Your task to perform on an android device: Search for the best rated book on Goodreads. Image 0: 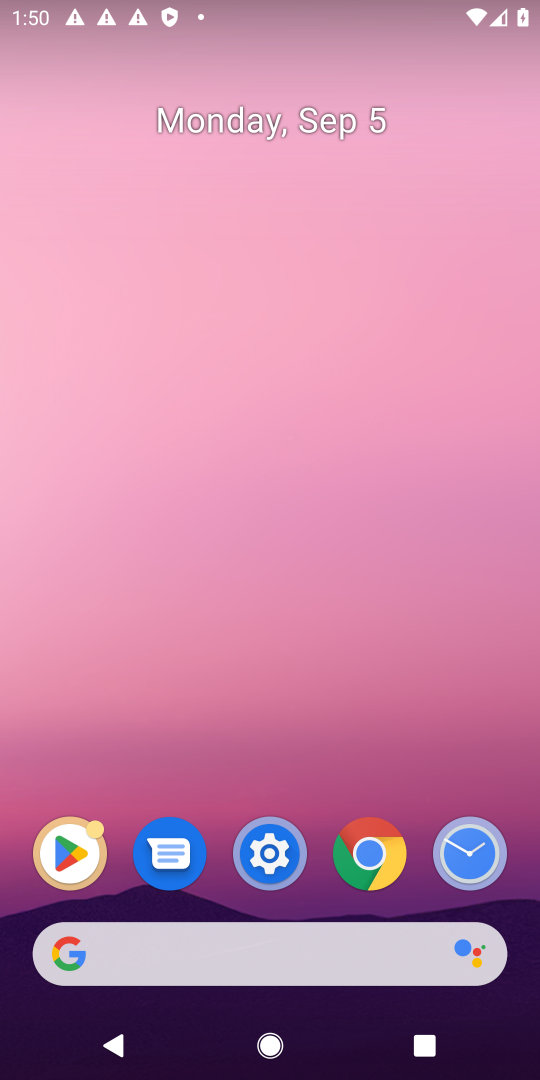
Step 0: click (441, 291)
Your task to perform on an android device: Search for the best rated book on Goodreads. Image 1: 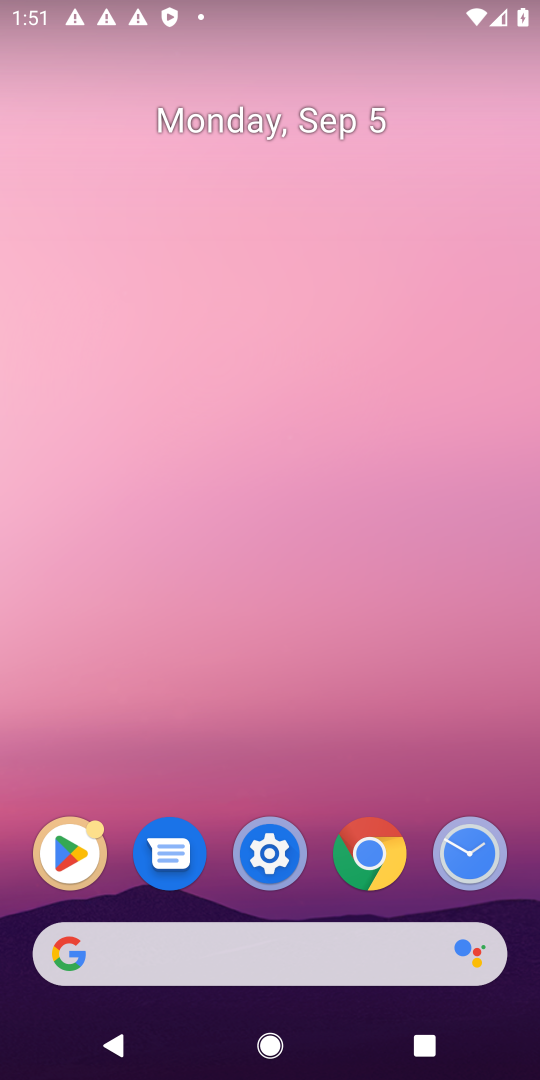
Step 1: drag from (249, 917) to (365, 49)
Your task to perform on an android device: Search for the best rated book on Goodreads. Image 2: 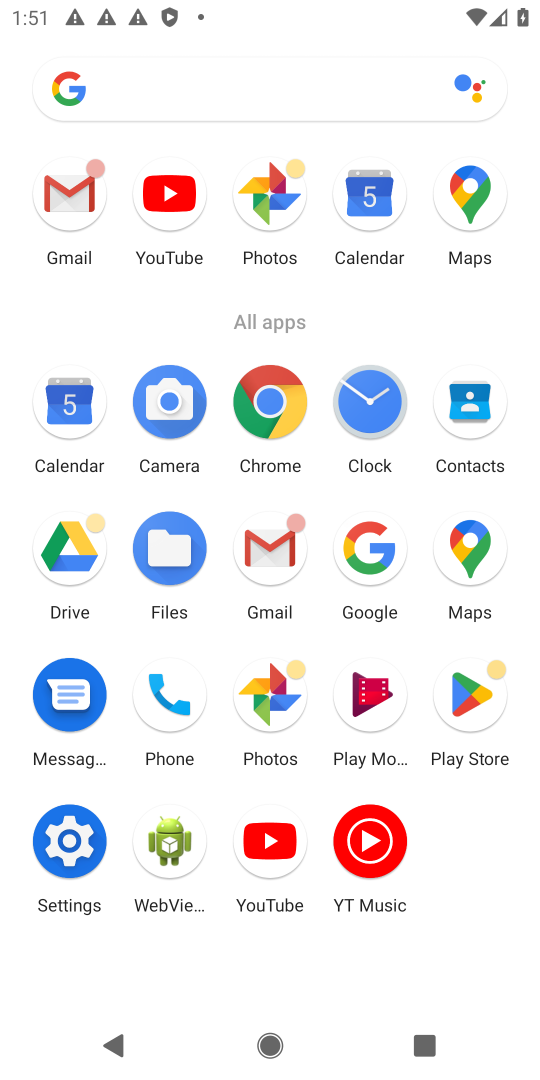
Step 2: click (377, 555)
Your task to perform on an android device: Search for the best rated book on Goodreads. Image 3: 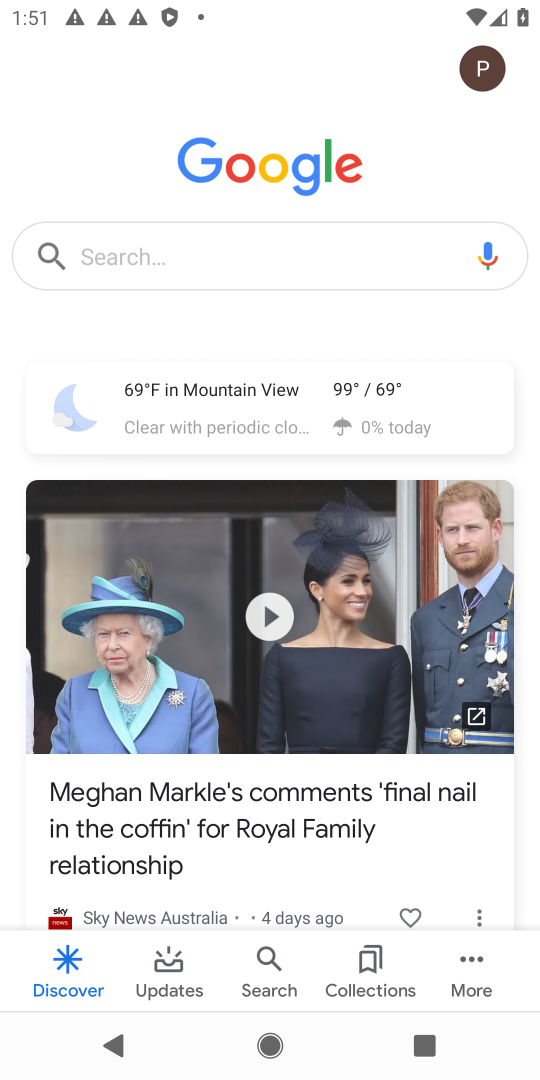
Step 3: click (222, 255)
Your task to perform on an android device: Search for the best rated book on Goodreads. Image 4: 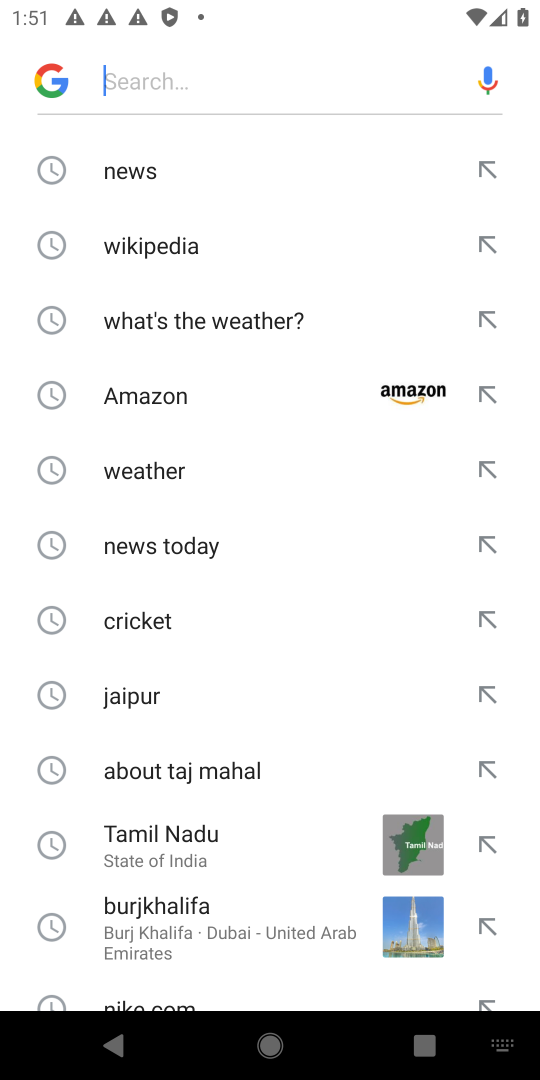
Step 4: type "Goodreads"
Your task to perform on an android device: Search for the best rated book on Goodreads. Image 5: 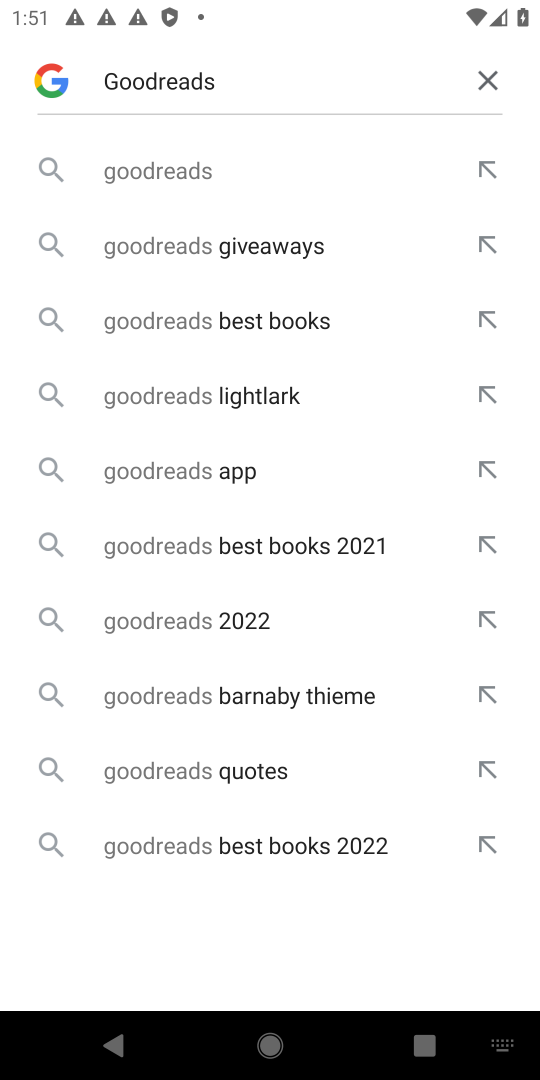
Step 5: click (159, 165)
Your task to perform on an android device: Search for the best rated book on Goodreads. Image 6: 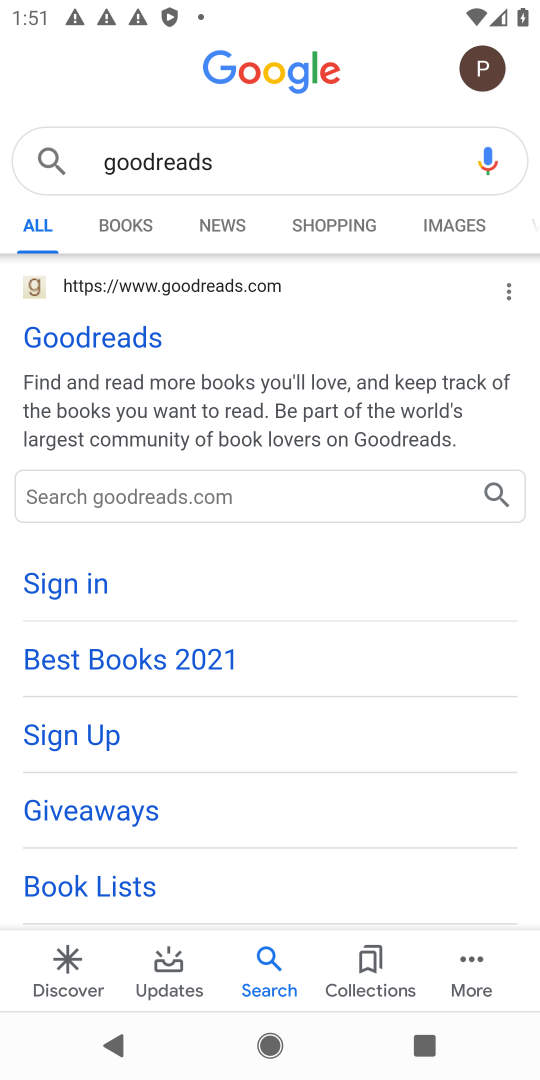
Step 6: click (92, 354)
Your task to perform on an android device: Search for the best rated book on Goodreads. Image 7: 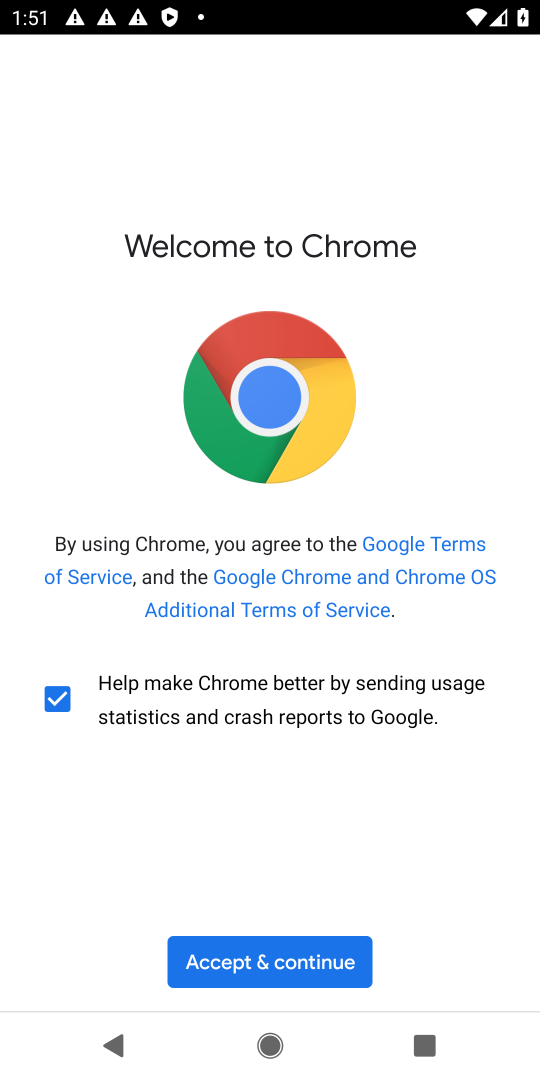
Step 7: click (247, 967)
Your task to perform on an android device: Search for the best rated book on Goodreads. Image 8: 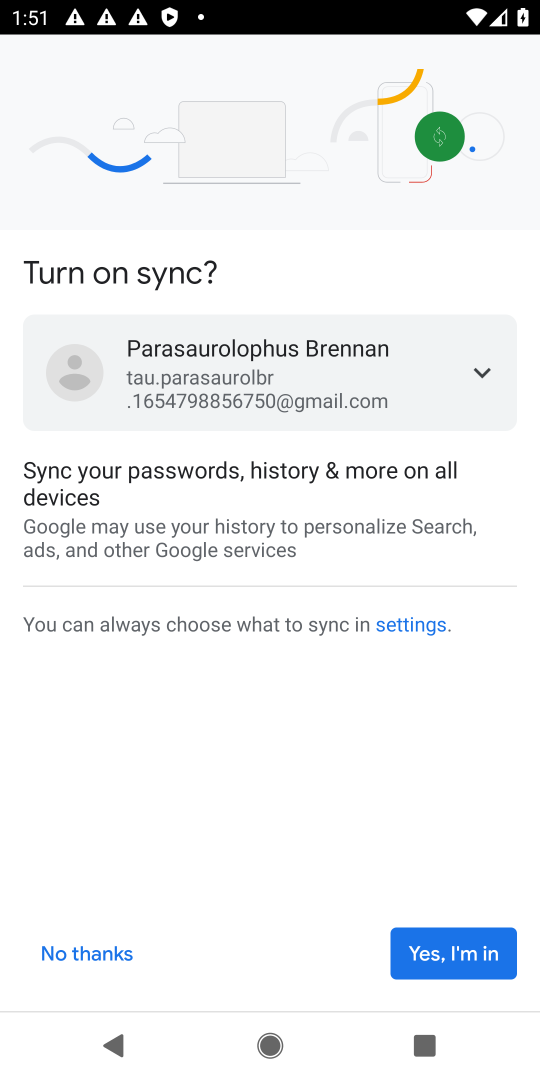
Step 8: click (422, 956)
Your task to perform on an android device: Search for the best rated book on Goodreads. Image 9: 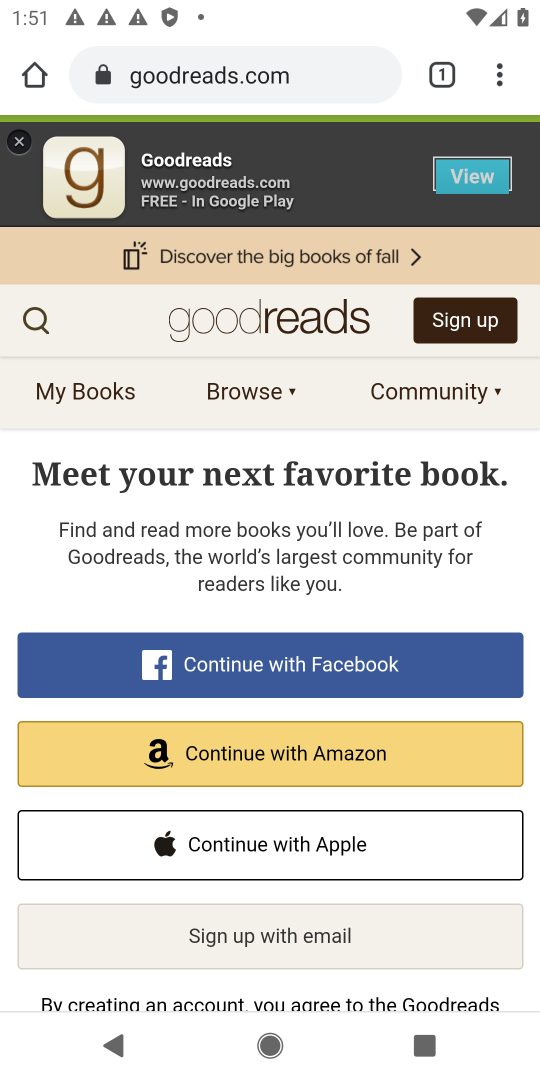
Step 9: click (26, 318)
Your task to perform on an android device: Search for the best rated book on Goodreads. Image 10: 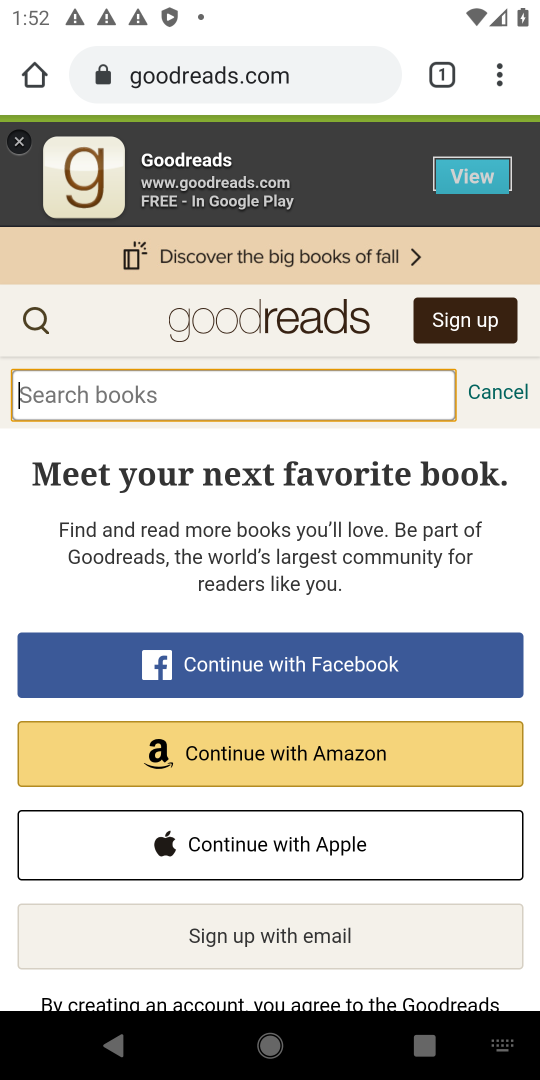
Step 10: type "best rated book"
Your task to perform on an android device: Search for the best rated book on Goodreads. Image 11: 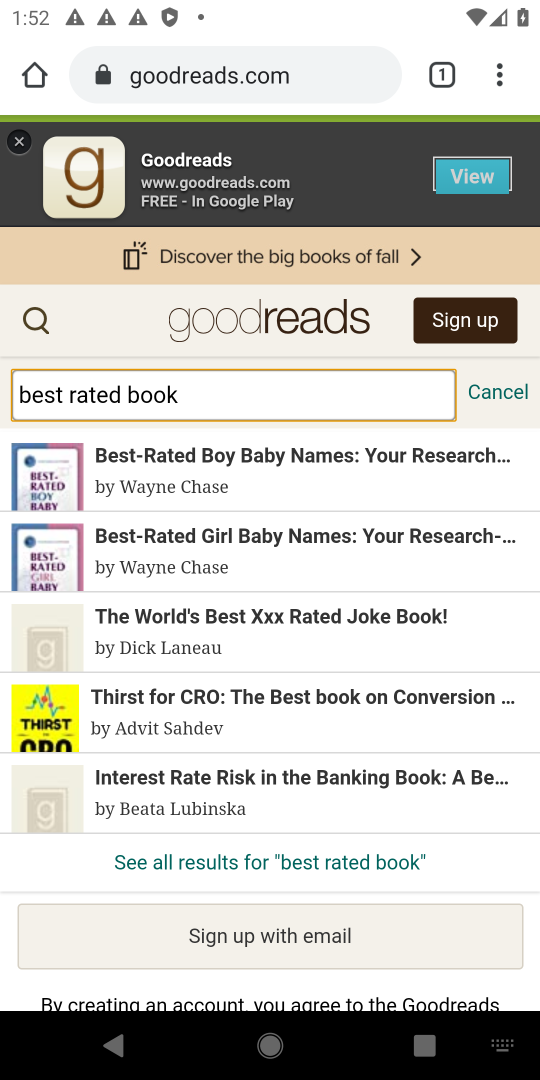
Step 11: click (137, 475)
Your task to perform on an android device: Search for the best rated book on Goodreads. Image 12: 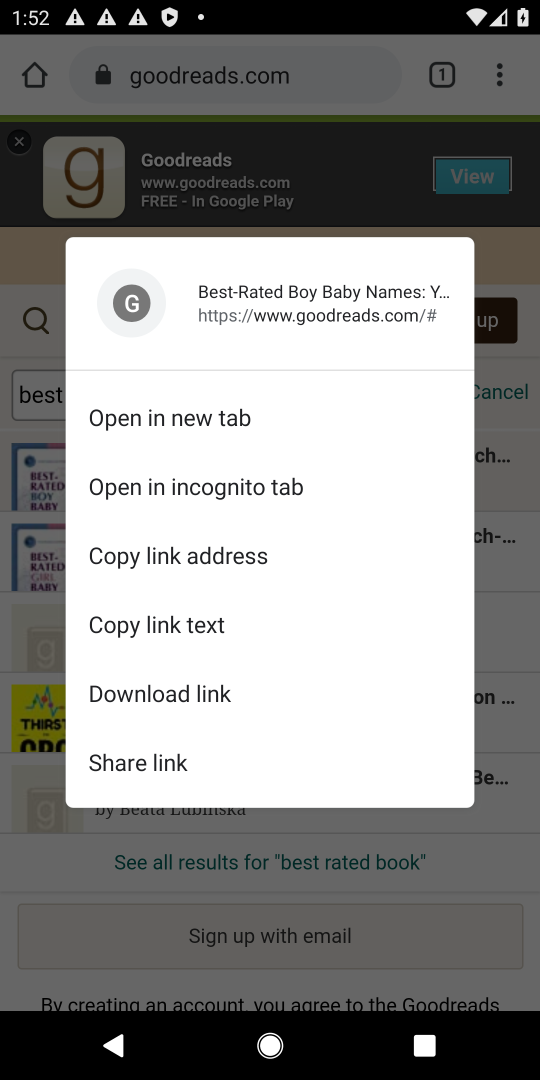
Step 12: click (95, 831)
Your task to perform on an android device: Search for the best rated book on Goodreads. Image 13: 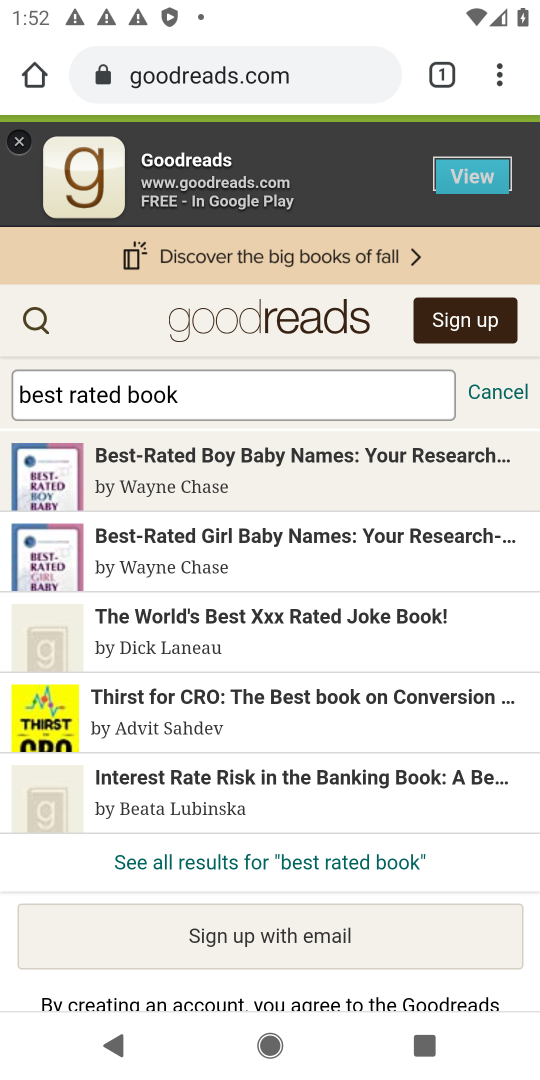
Step 13: click (297, 476)
Your task to perform on an android device: Search for the best rated book on Goodreads. Image 14: 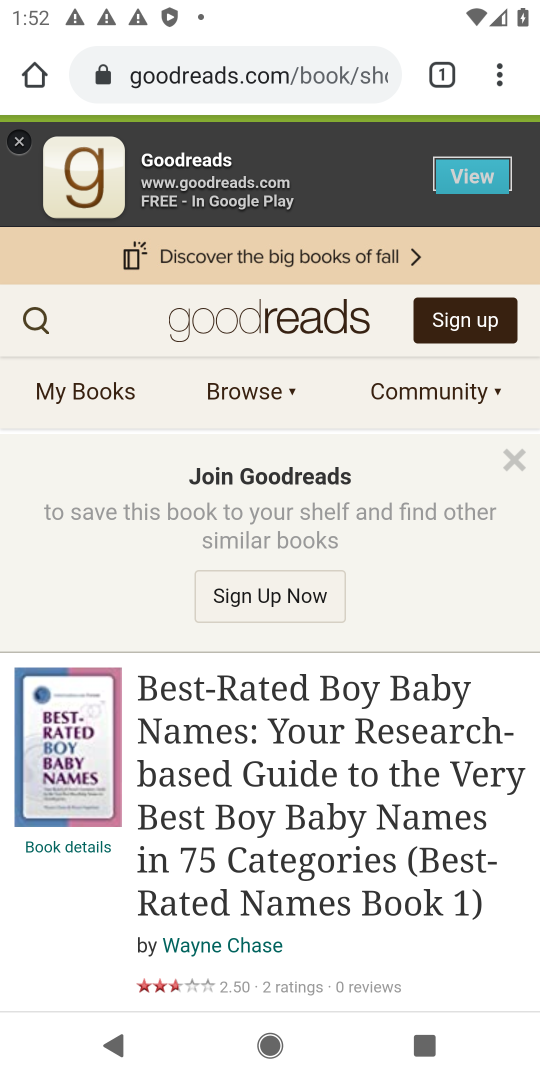
Step 14: task complete